Your task to perform on an android device: toggle location history Image 0: 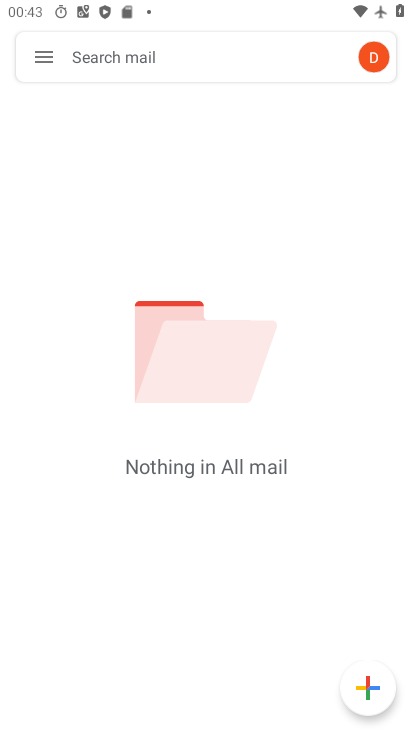
Step 0: press home button
Your task to perform on an android device: toggle location history Image 1: 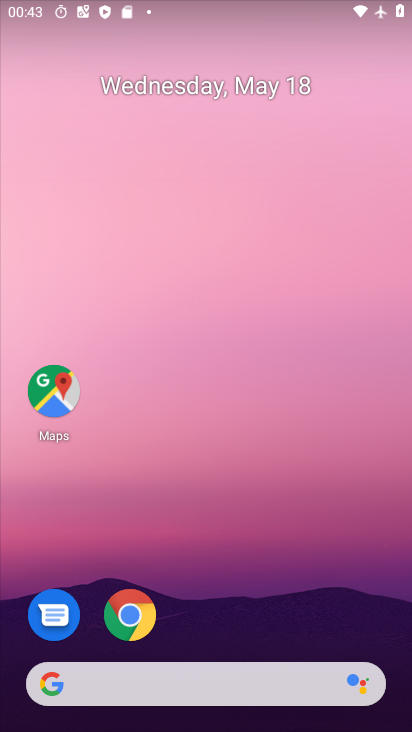
Step 1: drag from (193, 623) to (238, 249)
Your task to perform on an android device: toggle location history Image 2: 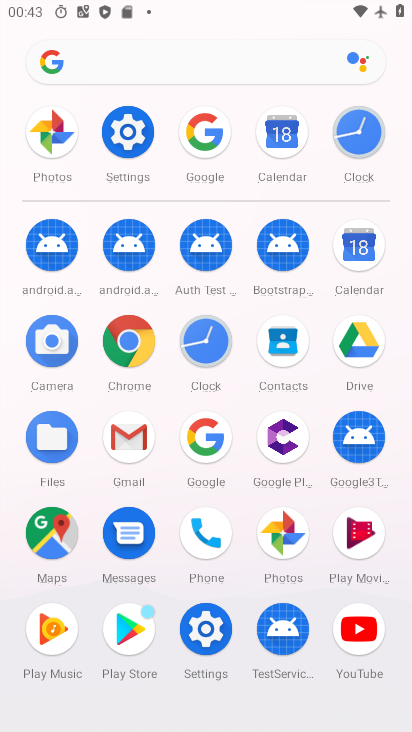
Step 2: click (129, 126)
Your task to perform on an android device: toggle location history Image 3: 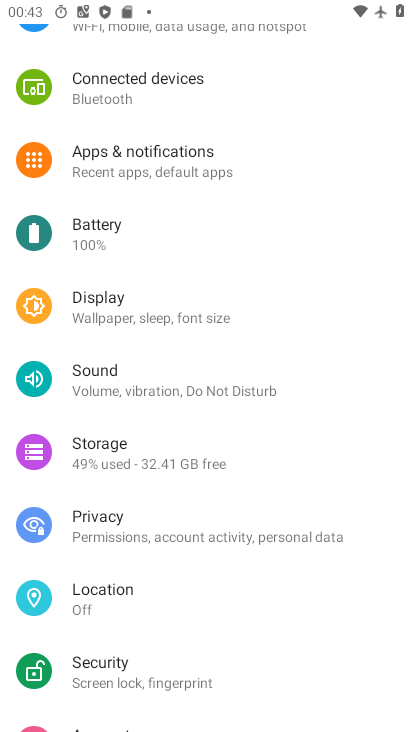
Step 3: click (126, 603)
Your task to perform on an android device: toggle location history Image 4: 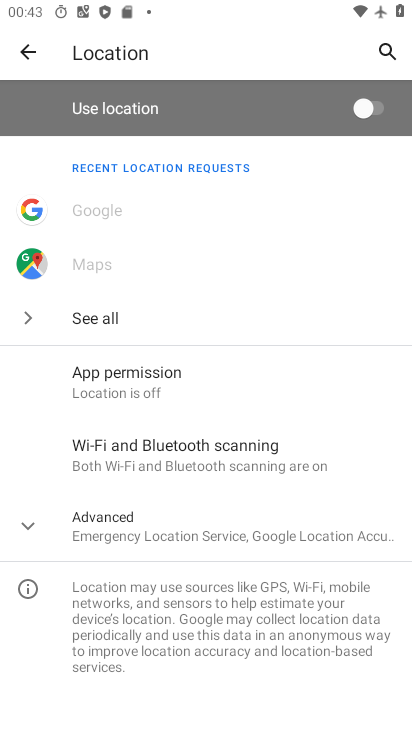
Step 4: click (219, 531)
Your task to perform on an android device: toggle location history Image 5: 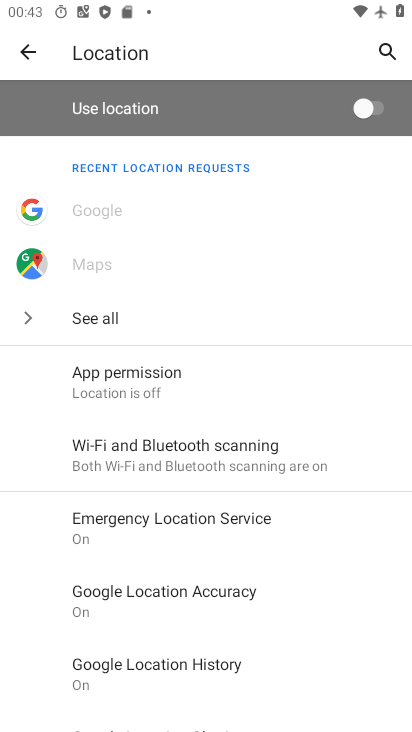
Step 5: click (223, 652)
Your task to perform on an android device: toggle location history Image 6: 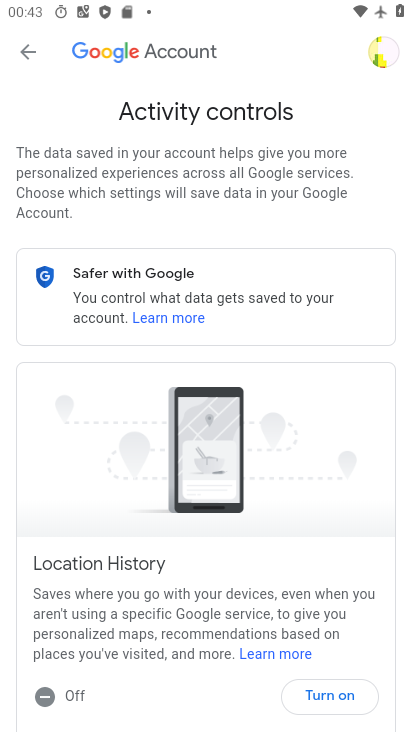
Step 6: click (325, 690)
Your task to perform on an android device: toggle location history Image 7: 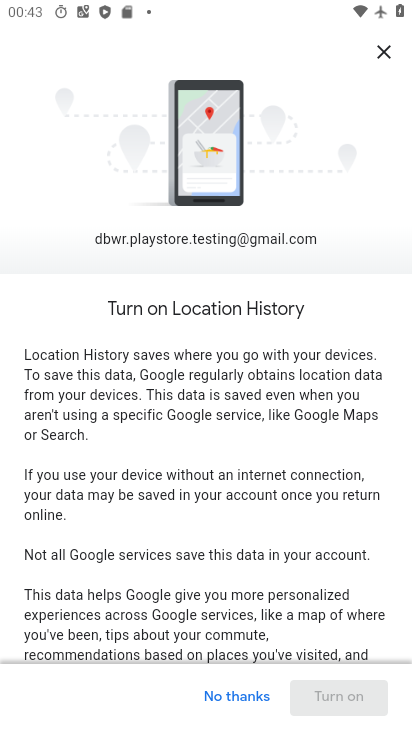
Step 7: drag from (271, 601) to (283, 275)
Your task to perform on an android device: toggle location history Image 8: 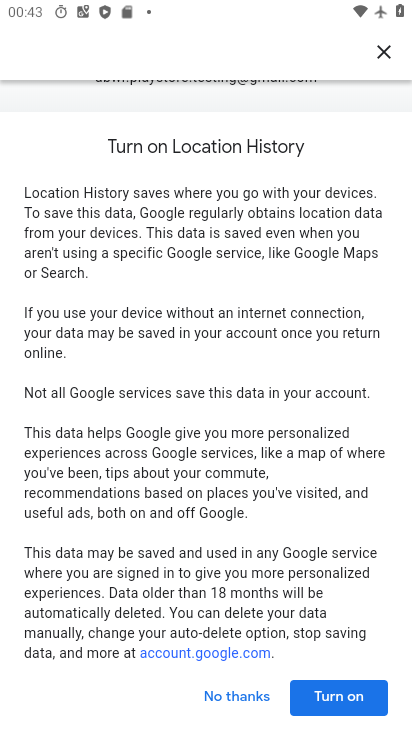
Step 8: click (308, 689)
Your task to perform on an android device: toggle location history Image 9: 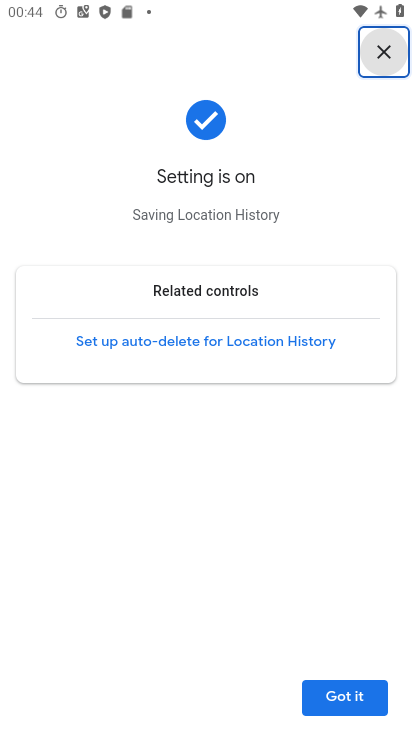
Step 9: task complete